Your task to perform on an android device: Turn off the flashlight Image 0: 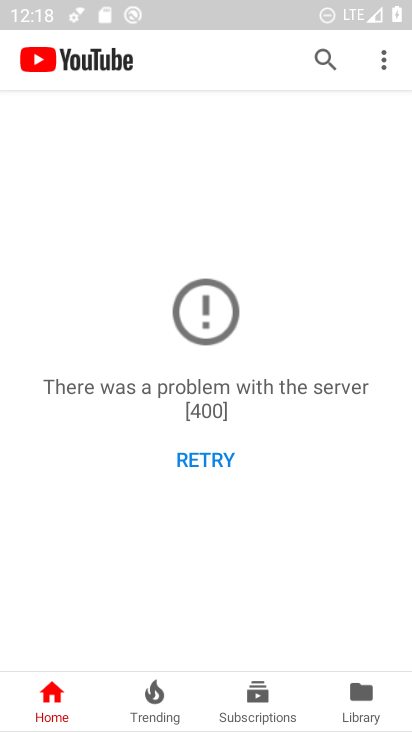
Step 0: press back button
Your task to perform on an android device: Turn off the flashlight Image 1: 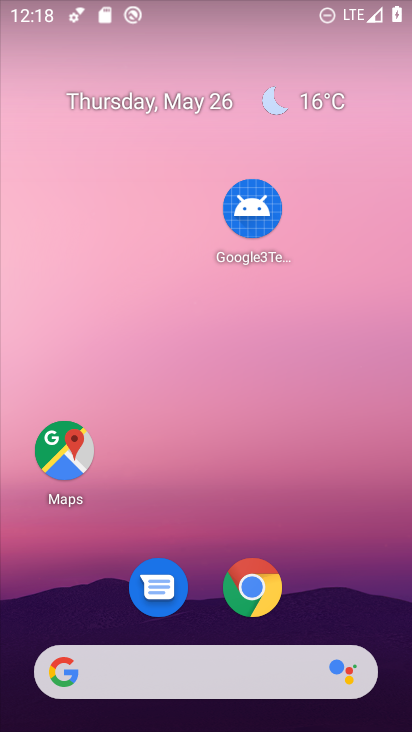
Step 1: task complete